Your task to perform on an android device: turn off notifications settings in the gmail app Image 0: 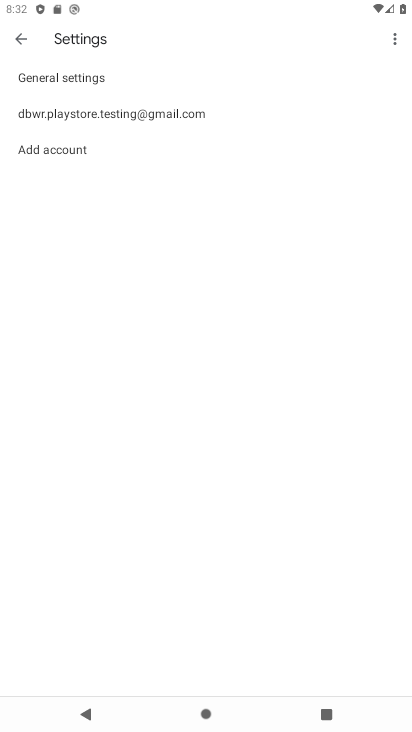
Step 0: press home button
Your task to perform on an android device: turn off notifications settings in the gmail app Image 1: 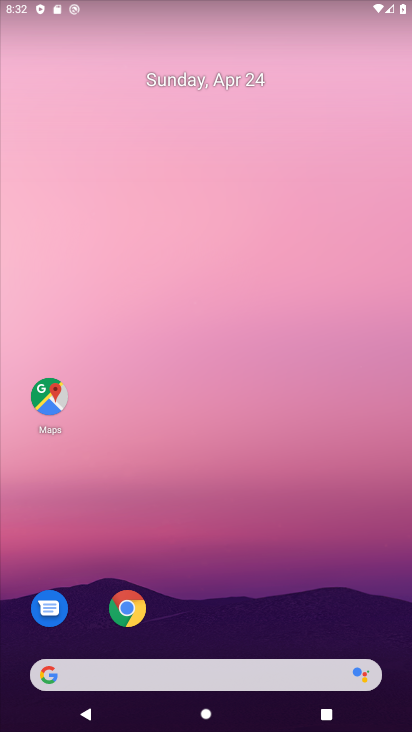
Step 1: drag from (211, 629) to (243, 186)
Your task to perform on an android device: turn off notifications settings in the gmail app Image 2: 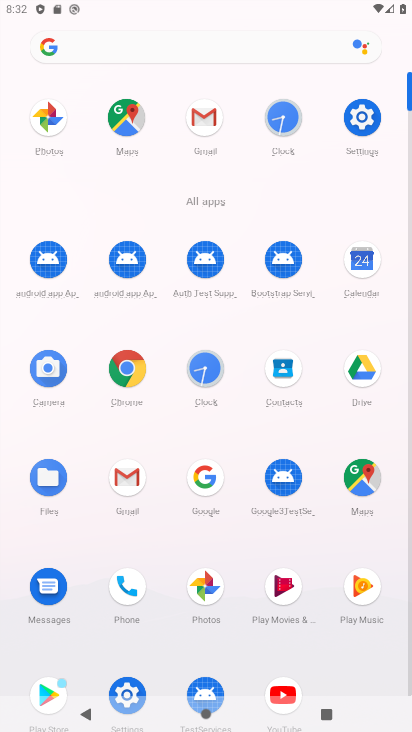
Step 2: click (203, 110)
Your task to perform on an android device: turn off notifications settings in the gmail app Image 3: 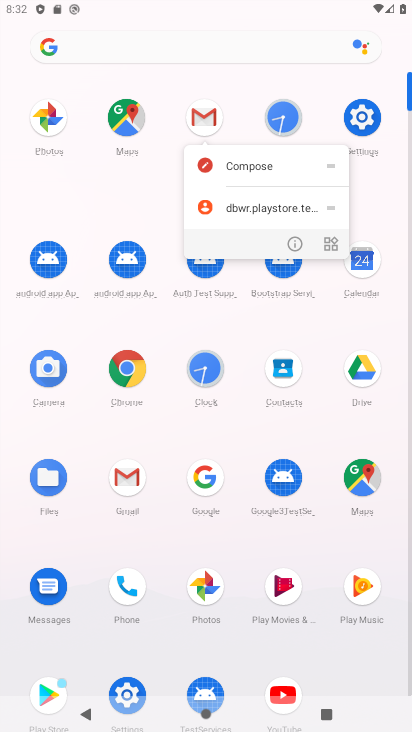
Step 3: click (203, 110)
Your task to perform on an android device: turn off notifications settings in the gmail app Image 4: 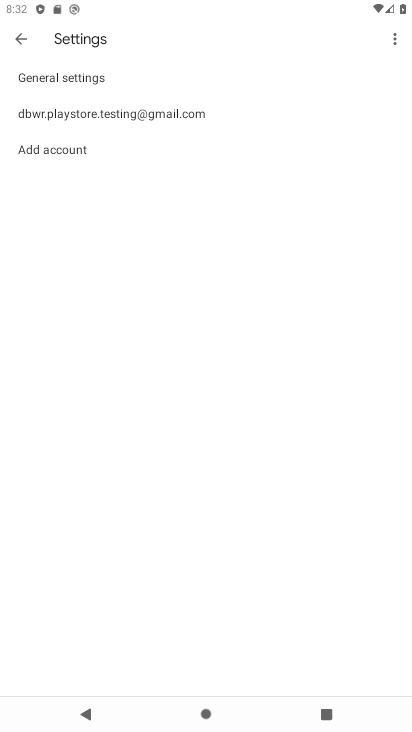
Step 4: click (199, 109)
Your task to perform on an android device: turn off notifications settings in the gmail app Image 5: 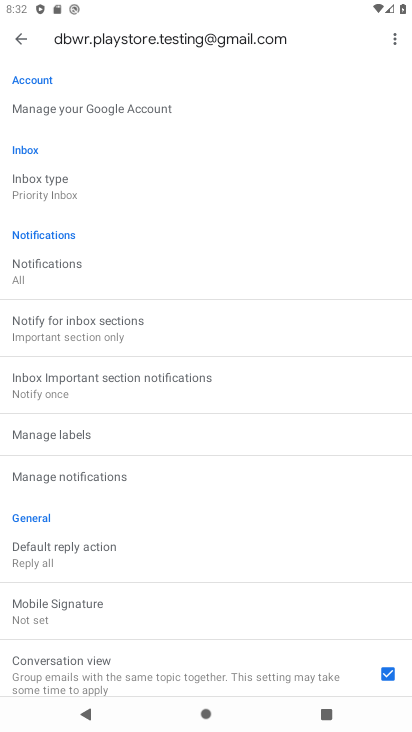
Step 5: click (158, 477)
Your task to perform on an android device: turn off notifications settings in the gmail app Image 6: 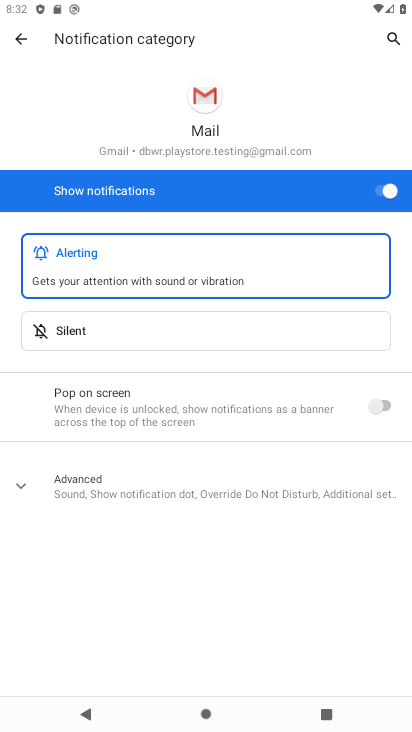
Step 6: click (372, 194)
Your task to perform on an android device: turn off notifications settings in the gmail app Image 7: 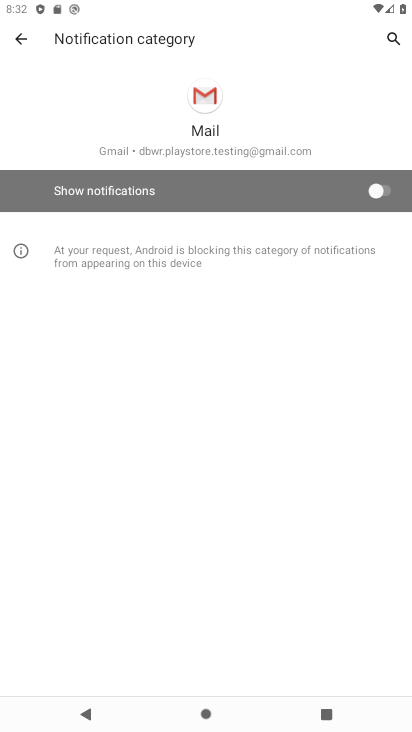
Step 7: task complete